Your task to perform on an android device: Show me the alarms in the clock app Image 0: 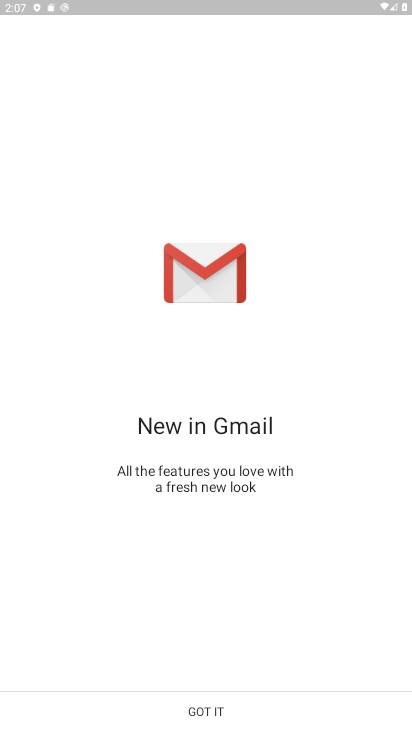
Step 0: press home button
Your task to perform on an android device: Show me the alarms in the clock app Image 1: 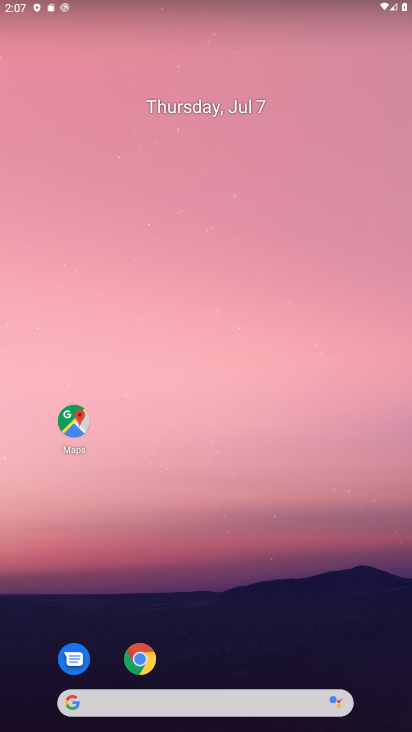
Step 1: drag from (234, 680) to (256, 133)
Your task to perform on an android device: Show me the alarms in the clock app Image 2: 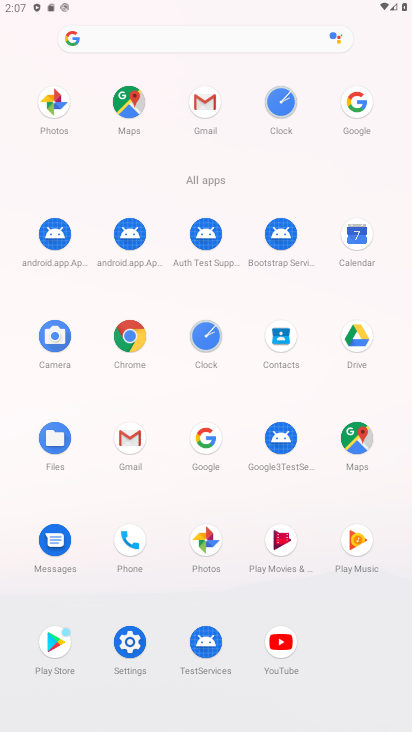
Step 2: click (198, 328)
Your task to perform on an android device: Show me the alarms in the clock app Image 3: 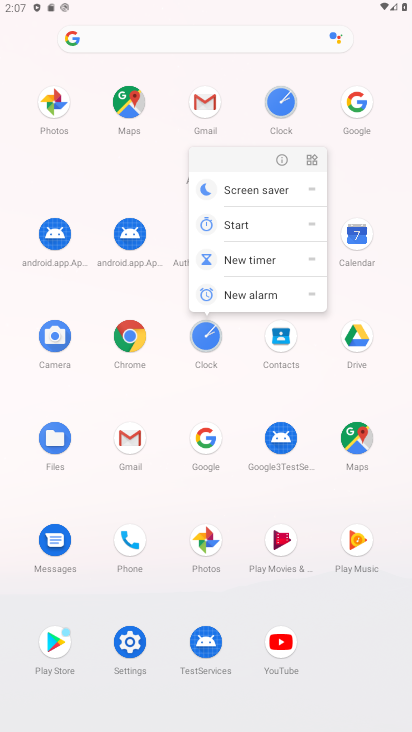
Step 3: click (203, 328)
Your task to perform on an android device: Show me the alarms in the clock app Image 4: 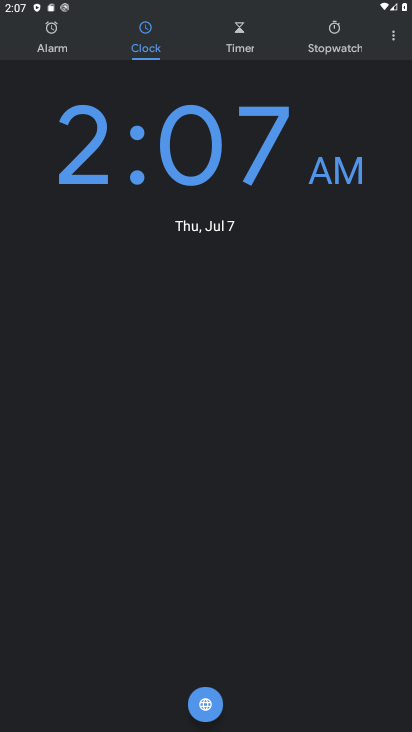
Step 4: click (50, 32)
Your task to perform on an android device: Show me the alarms in the clock app Image 5: 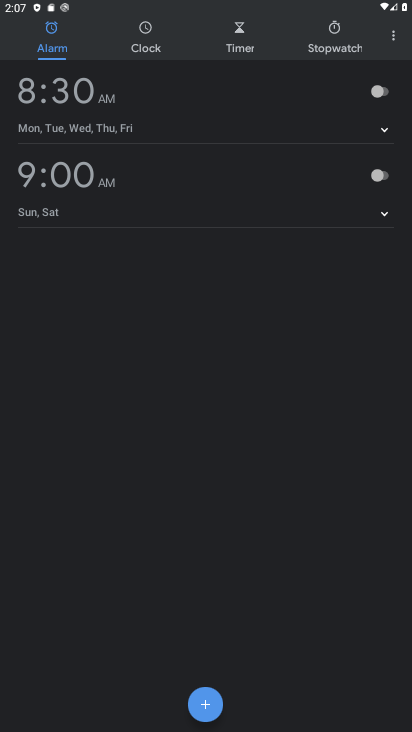
Step 5: task complete